Your task to perform on an android device: set the timer Image 0: 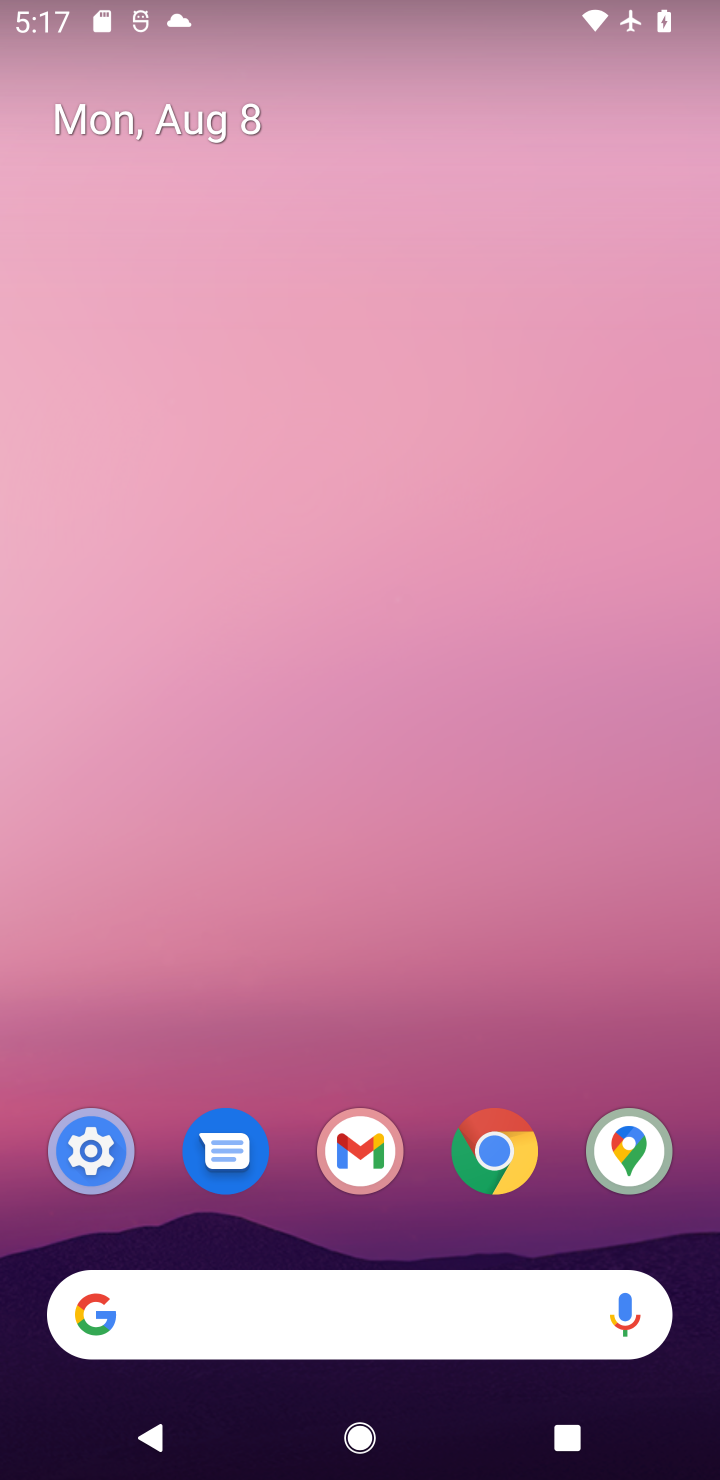
Step 0: drag from (453, 1030) to (406, 290)
Your task to perform on an android device: set the timer Image 1: 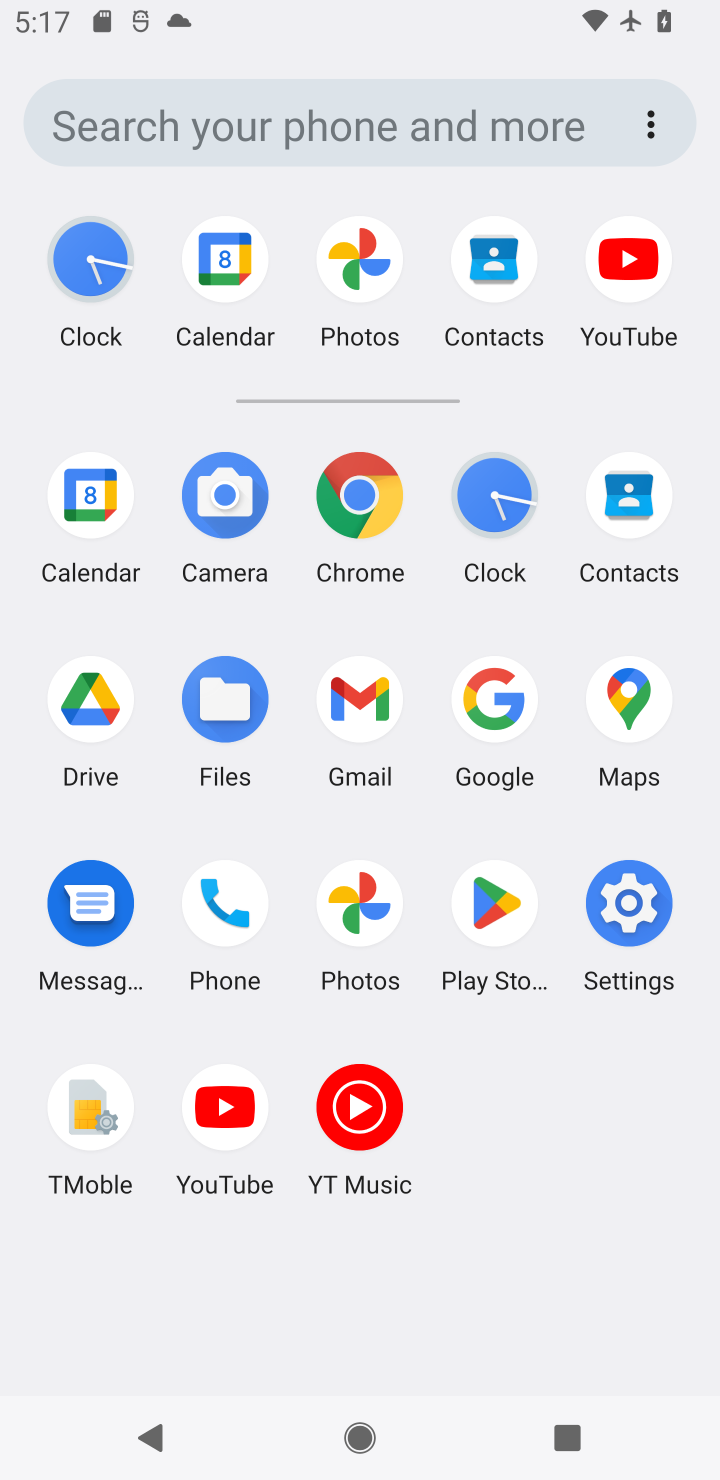
Step 1: click (93, 301)
Your task to perform on an android device: set the timer Image 2: 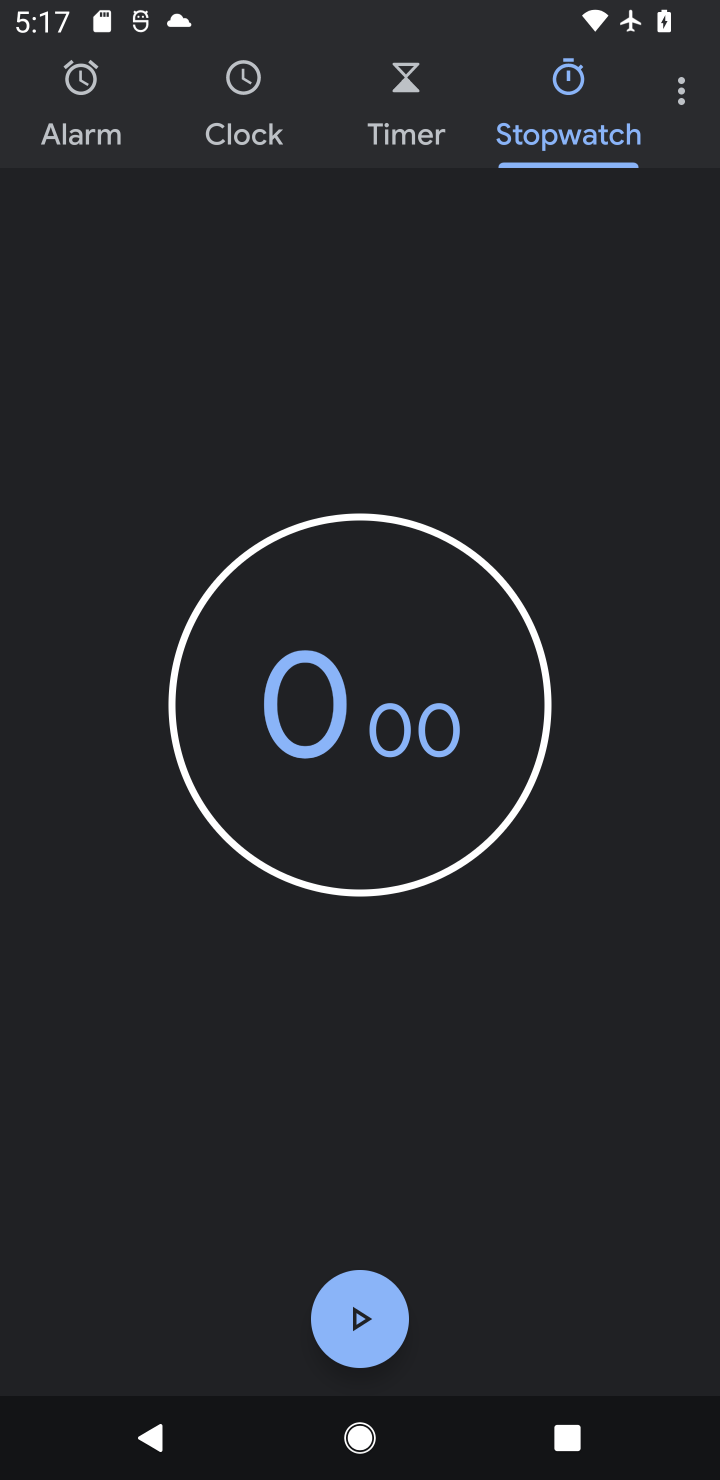
Step 2: click (439, 96)
Your task to perform on an android device: set the timer Image 3: 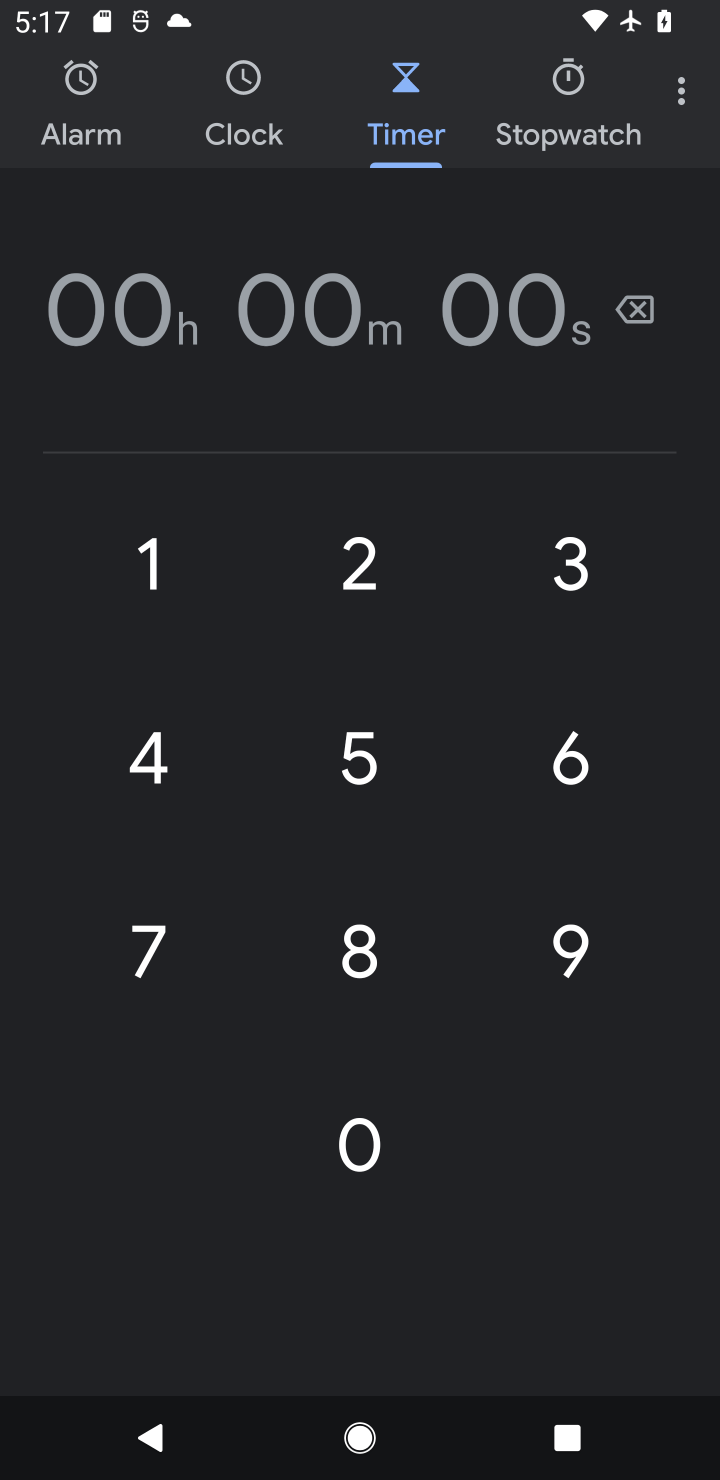
Step 3: type "11"
Your task to perform on an android device: set the timer Image 4: 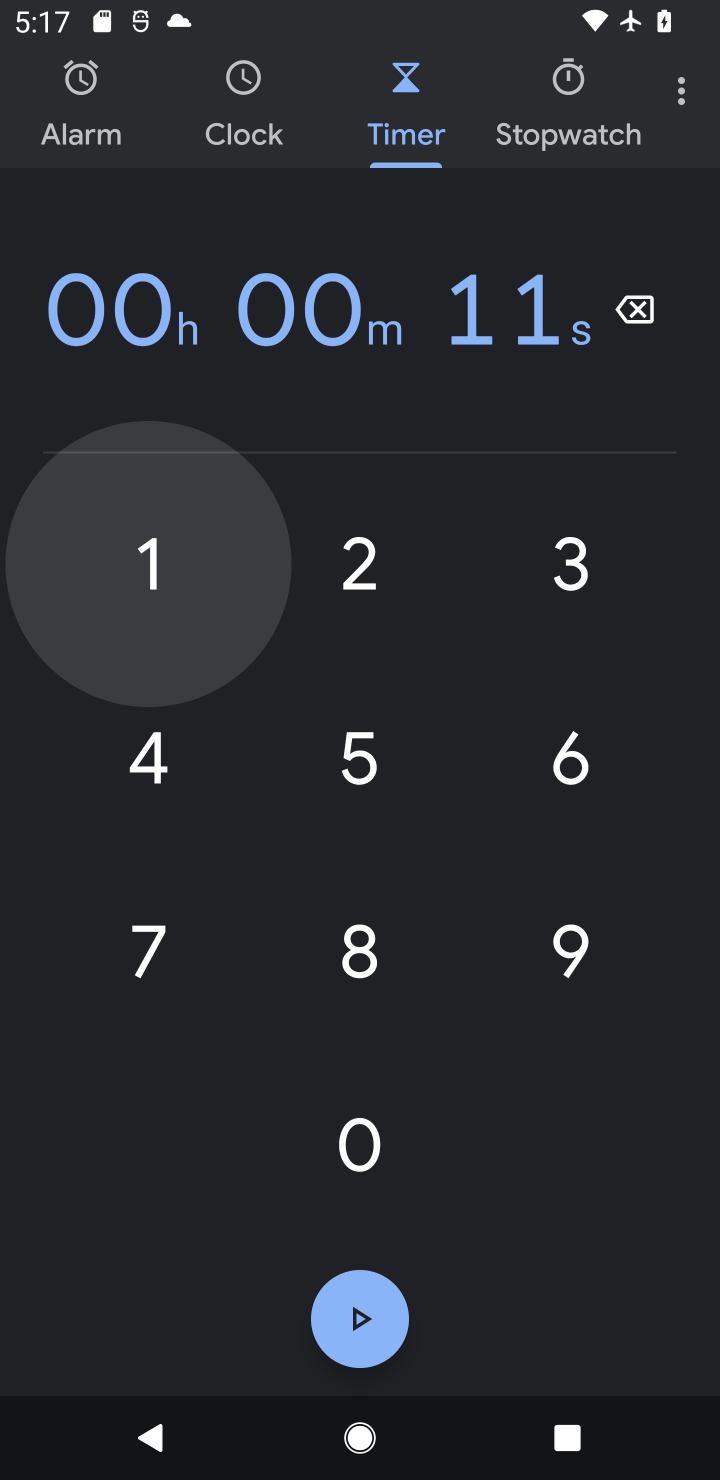
Step 4: task complete